Your task to perform on an android device: check storage Image 0: 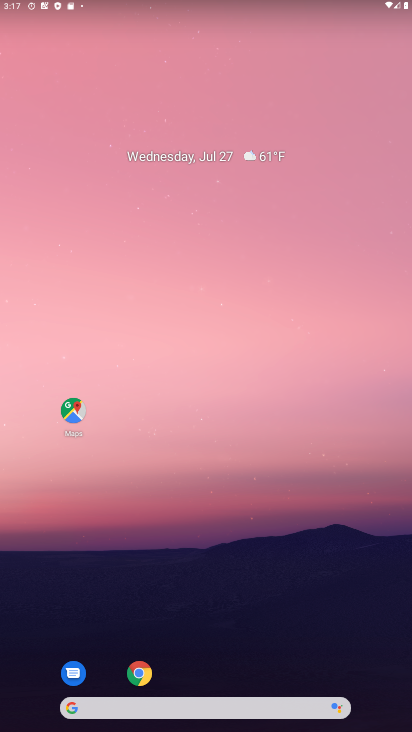
Step 0: drag from (30, 712) to (330, 164)
Your task to perform on an android device: check storage Image 1: 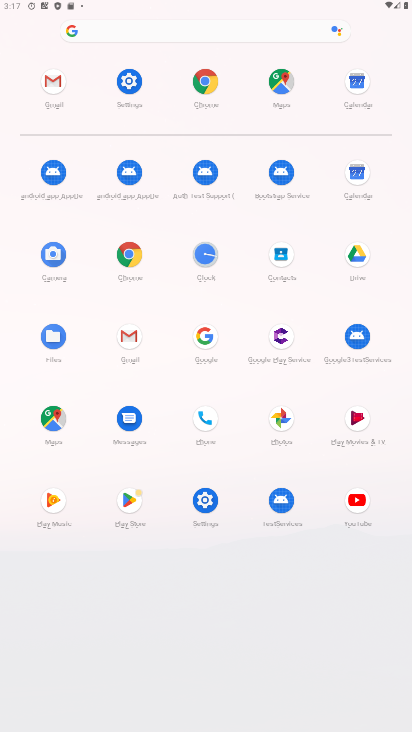
Step 1: click (215, 508)
Your task to perform on an android device: check storage Image 2: 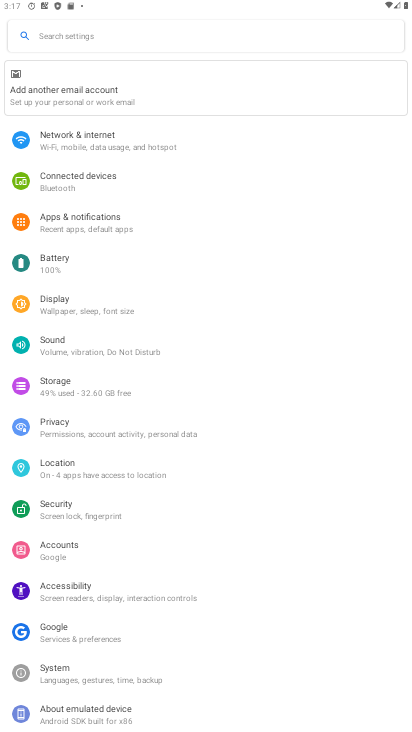
Step 2: click (87, 389)
Your task to perform on an android device: check storage Image 3: 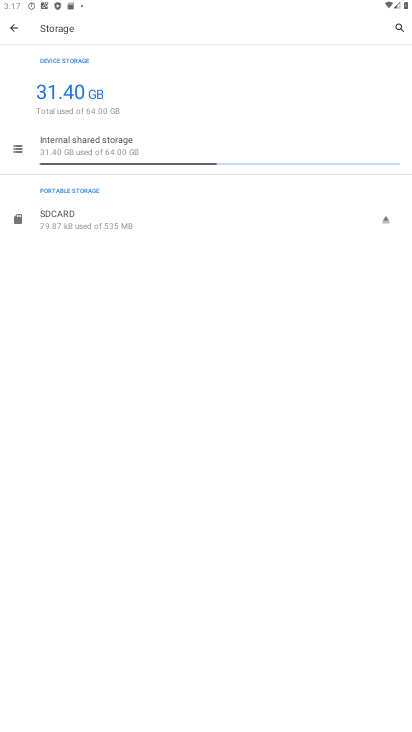
Step 3: task complete